Your task to perform on an android device: turn off notifications settings in the gmail app Image 0: 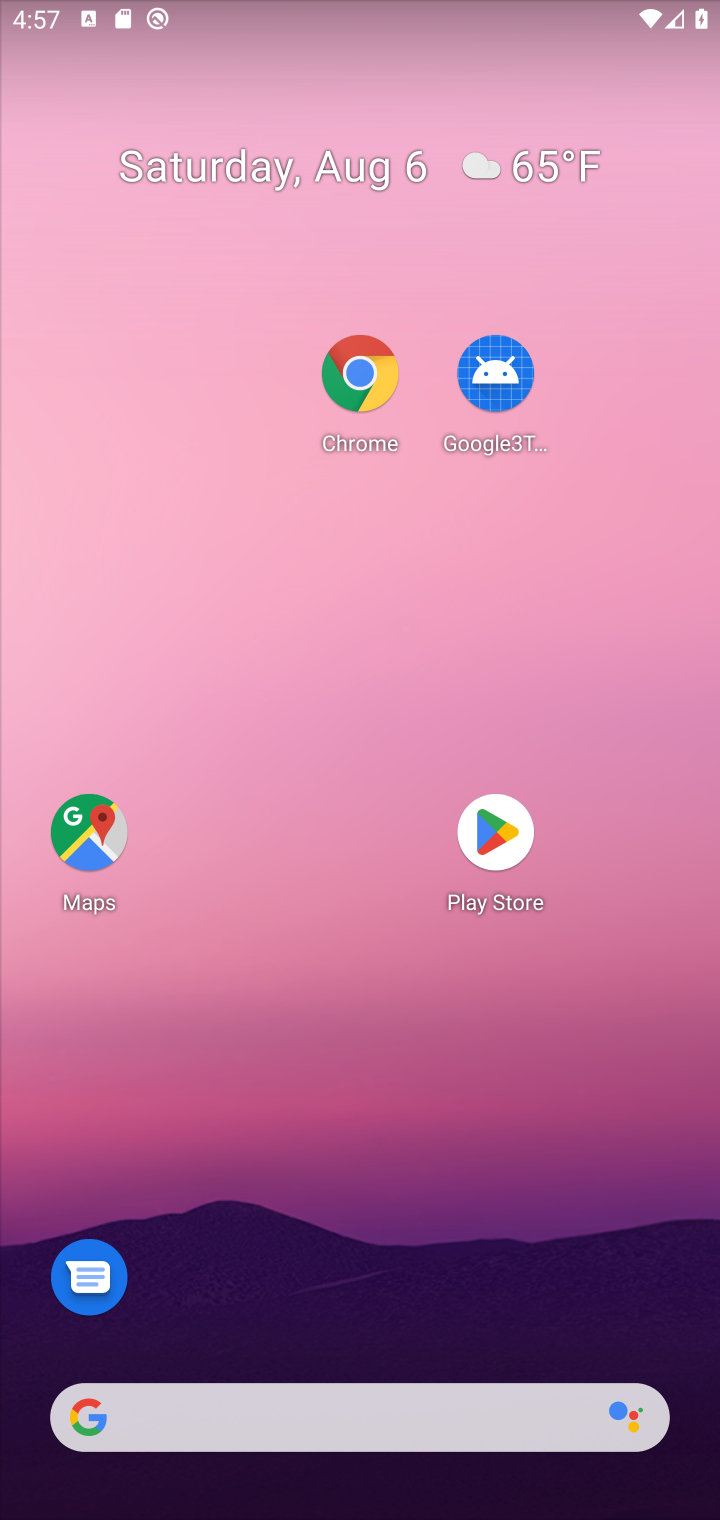
Step 0: drag from (353, 1449) to (411, 333)
Your task to perform on an android device: turn off notifications settings in the gmail app Image 1: 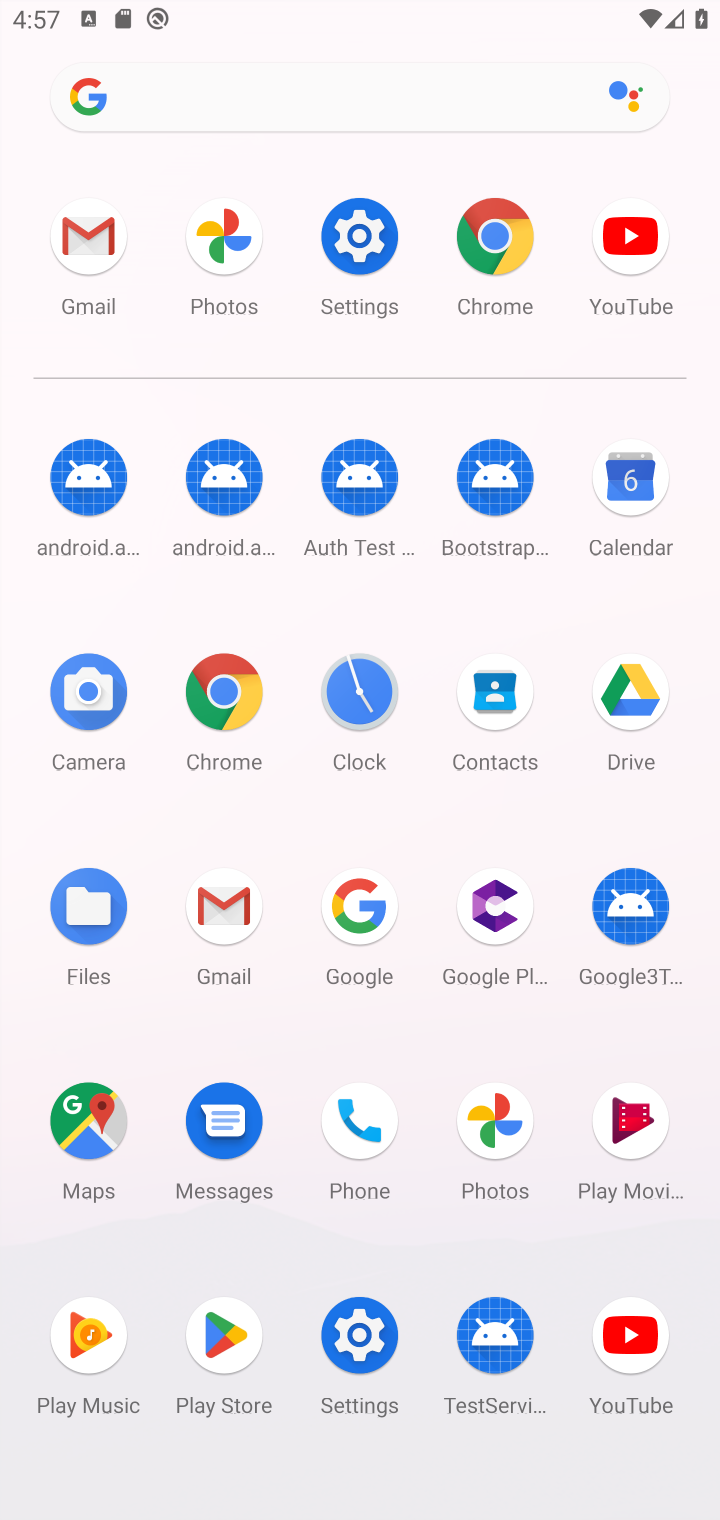
Step 1: click (225, 884)
Your task to perform on an android device: turn off notifications settings in the gmail app Image 2: 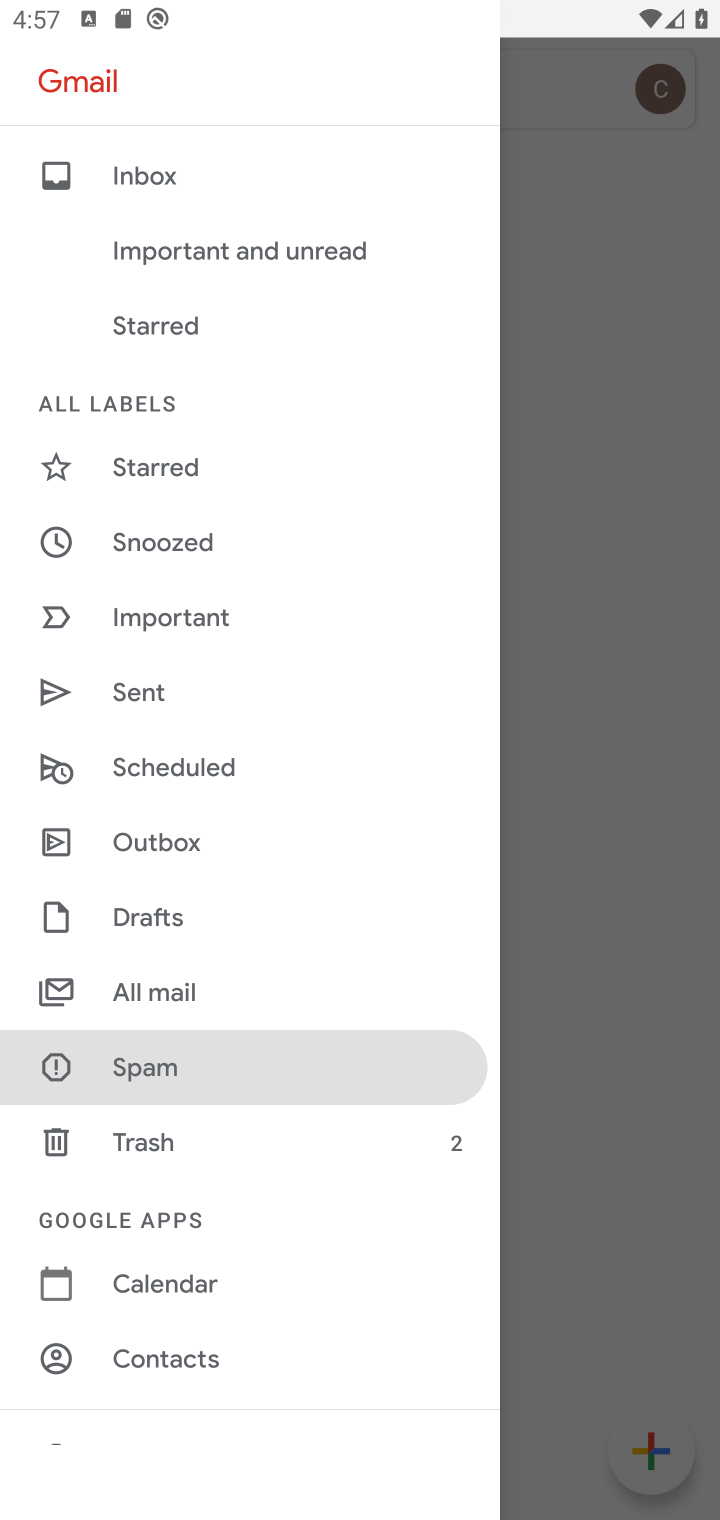
Step 2: drag from (259, 1306) to (316, 676)
Your task to perform on an android device: turn off notifications settings in the gmail app Image 3: 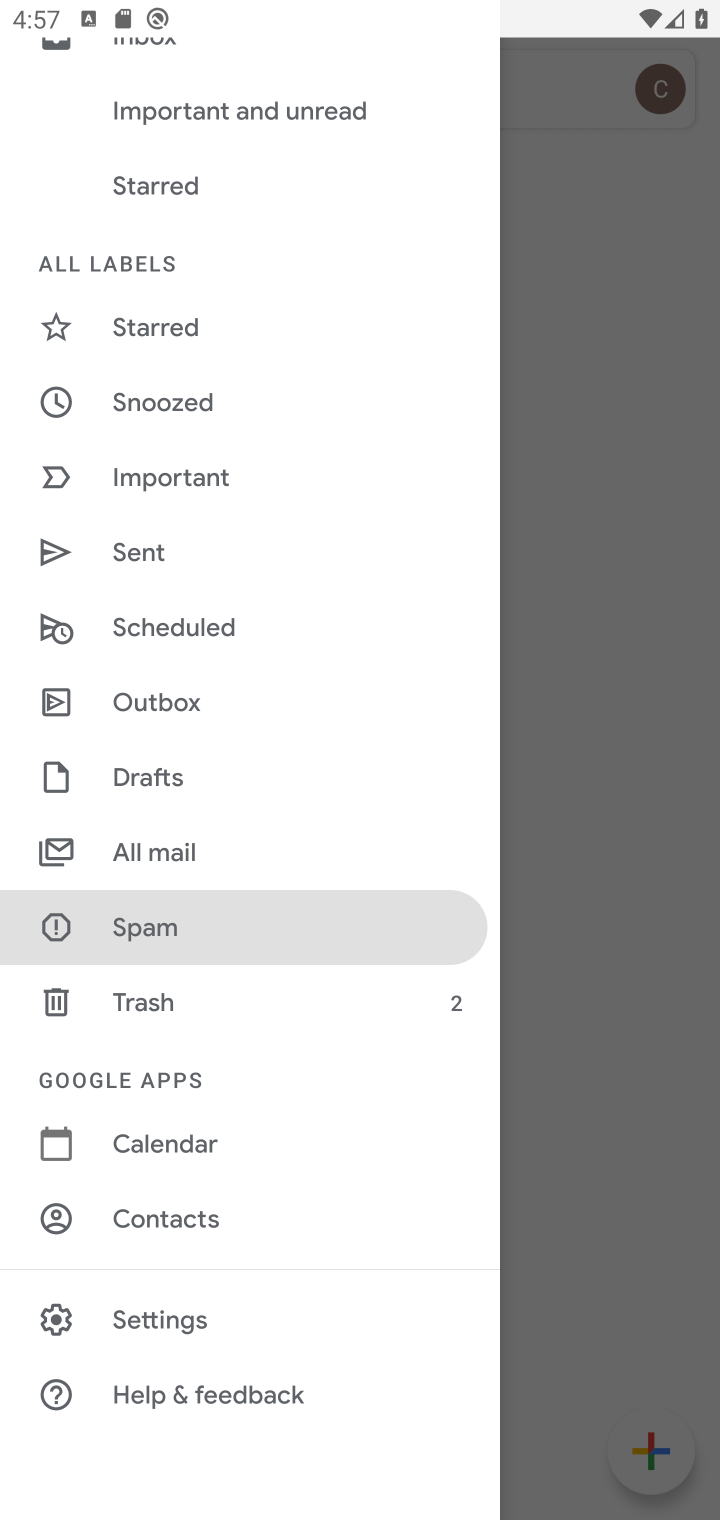
Step 3: click (210, 1321)
Your task to perform on an android device: turn off notifications settings in the gmail app Image 4: 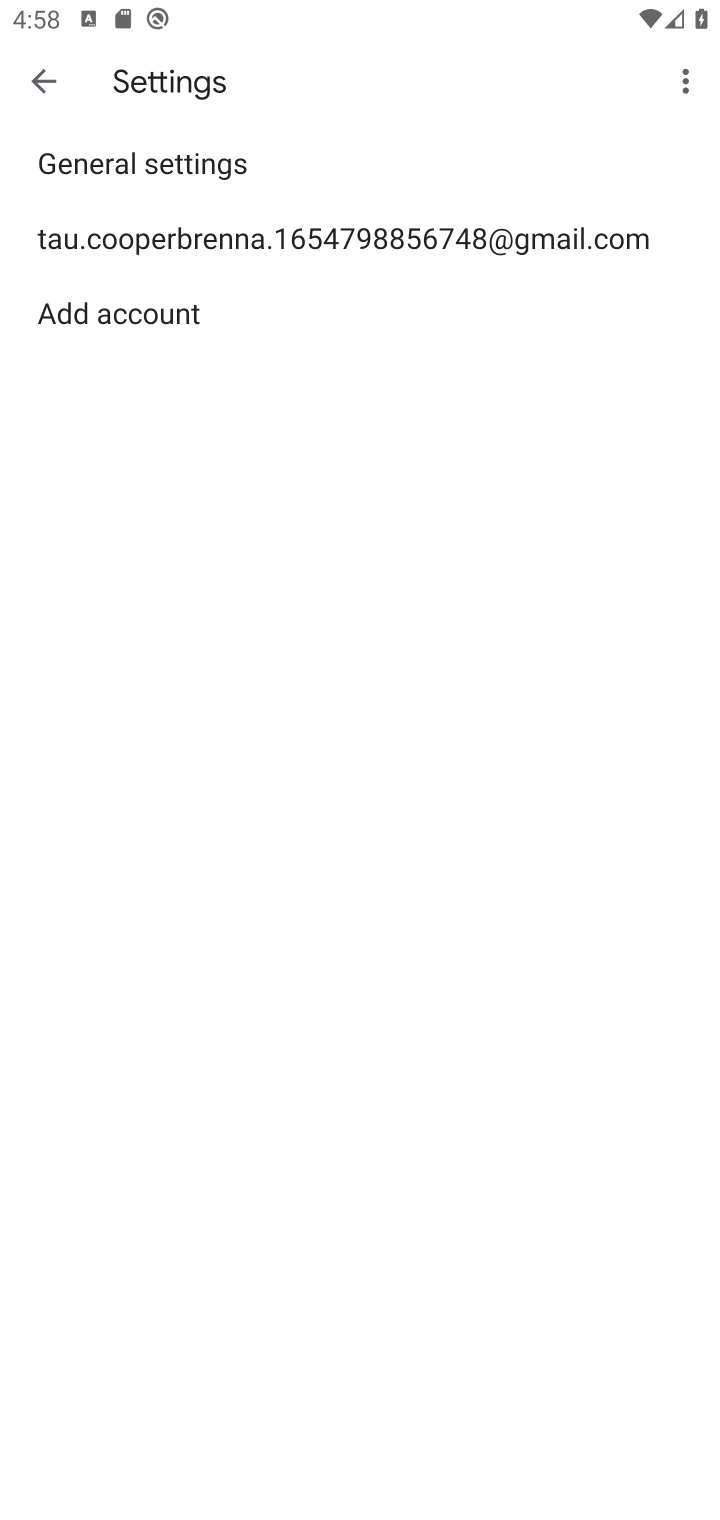
Step 4: click (173, 239)
Your task to perform on an android device: turn off notifications settings in the gmail app Image 5: 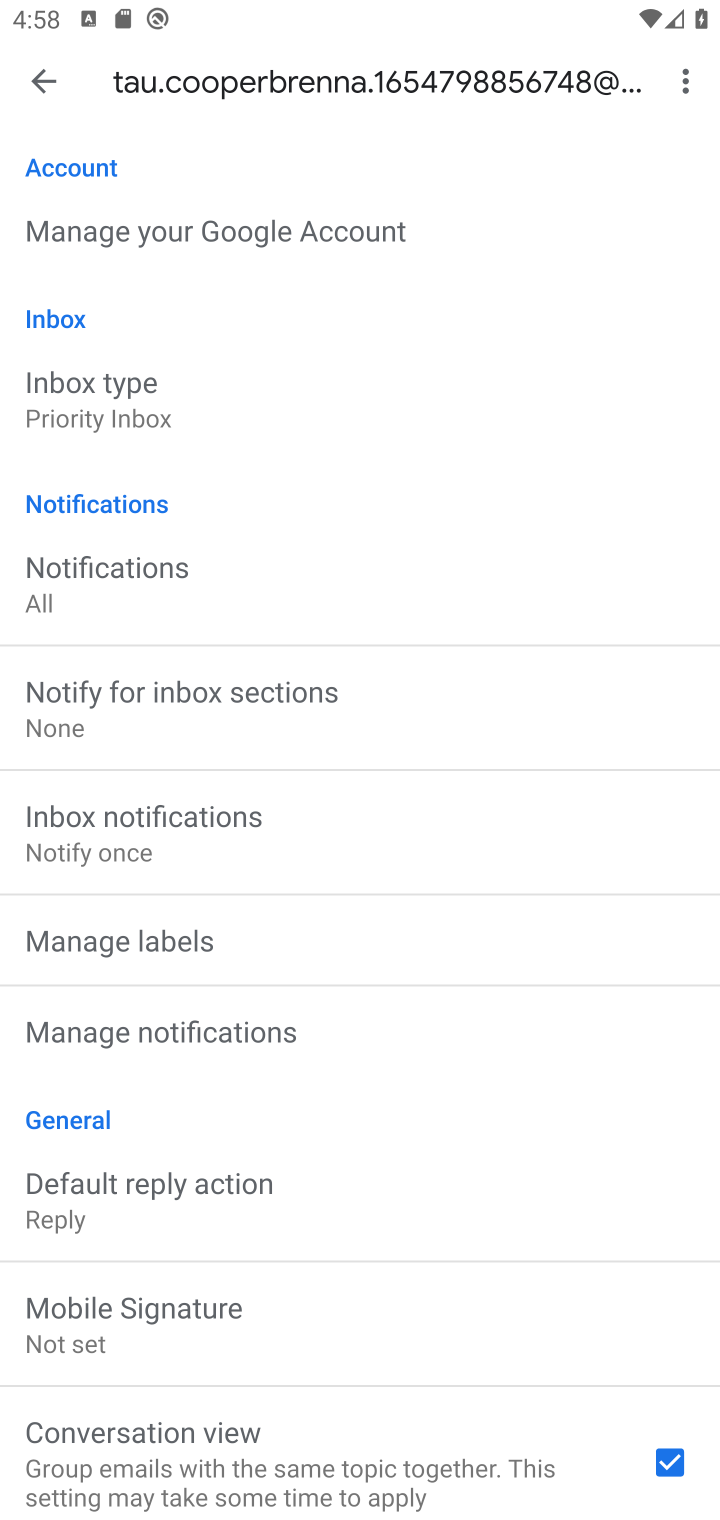
Step 5: click (195, 1028)
Your task to perform on an android device: turn off notifications settings in the gmail app Image 6: 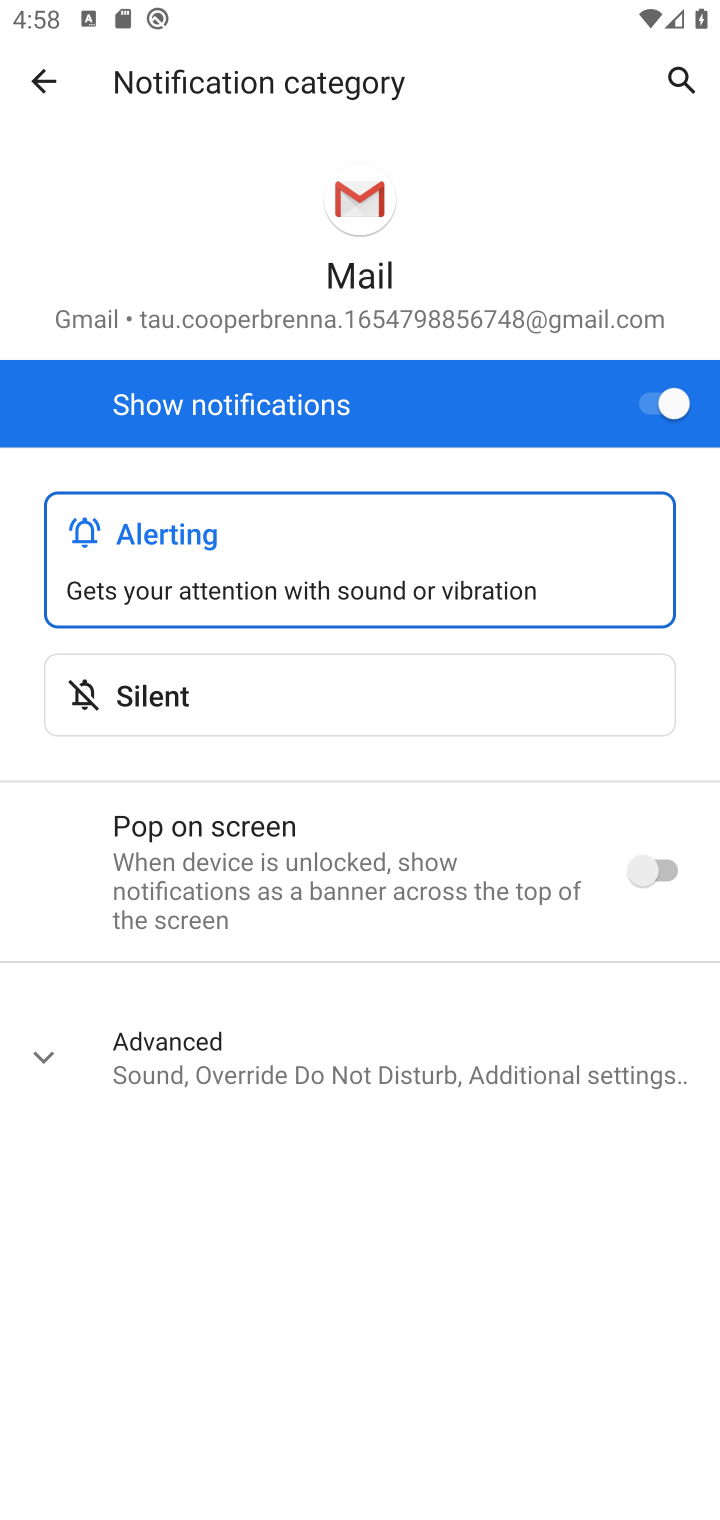
Step 6: click (653, 391)
Your task to perform on an android device: turn off notifications settings in the gmail app Image 7: 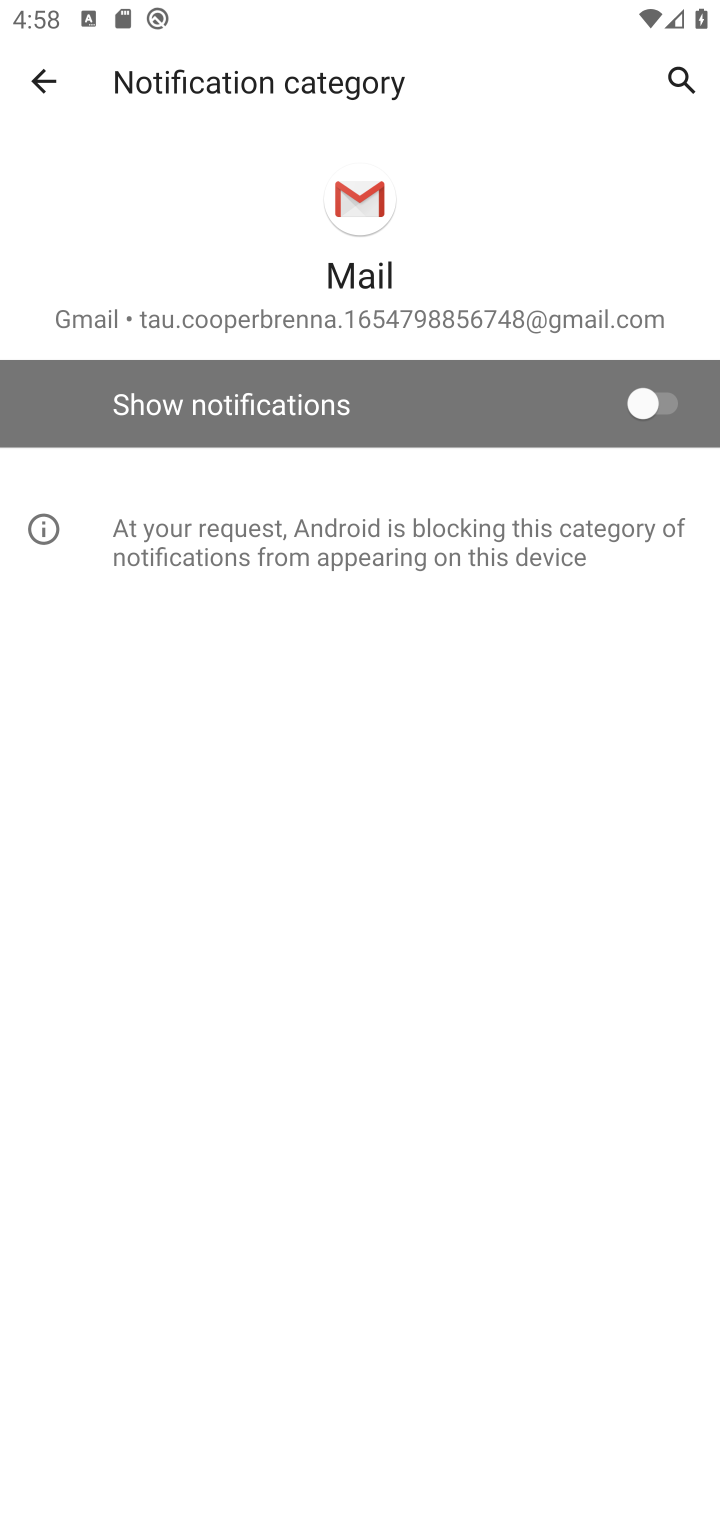
Step 7: task complete